Your task to perform on an android device: Empty the shopping cart on walmart. Add "macbook pro 15 inch" to the cart on walmart Image 0: 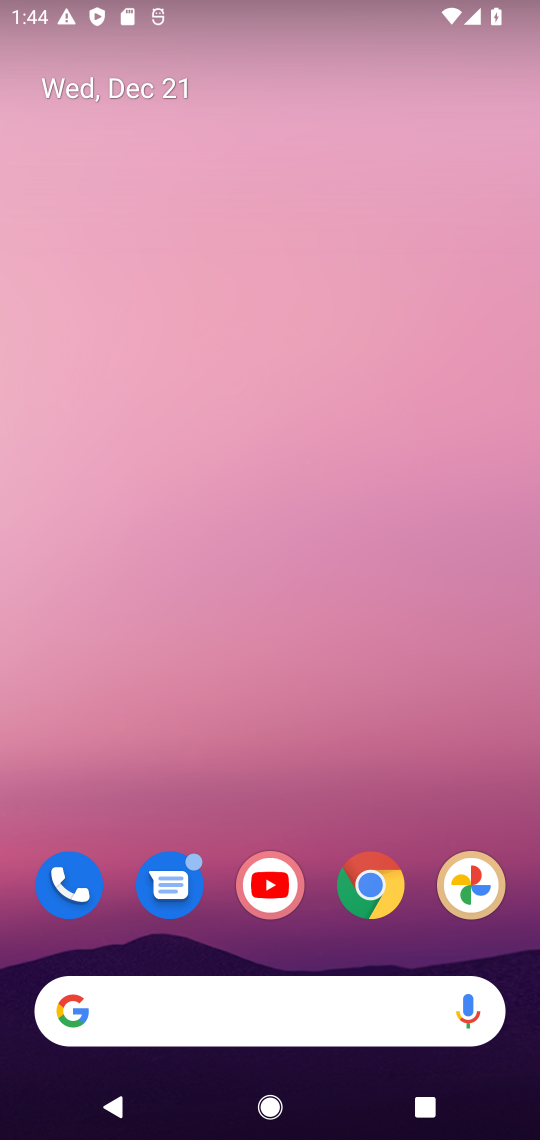
Step 0: drag from (223, 981) to (232, 507)
Your task to perform on an android device: Empty the shopping cart on walmart. Add "macbook pro 15 inch" to the cart on walmart Image 1: 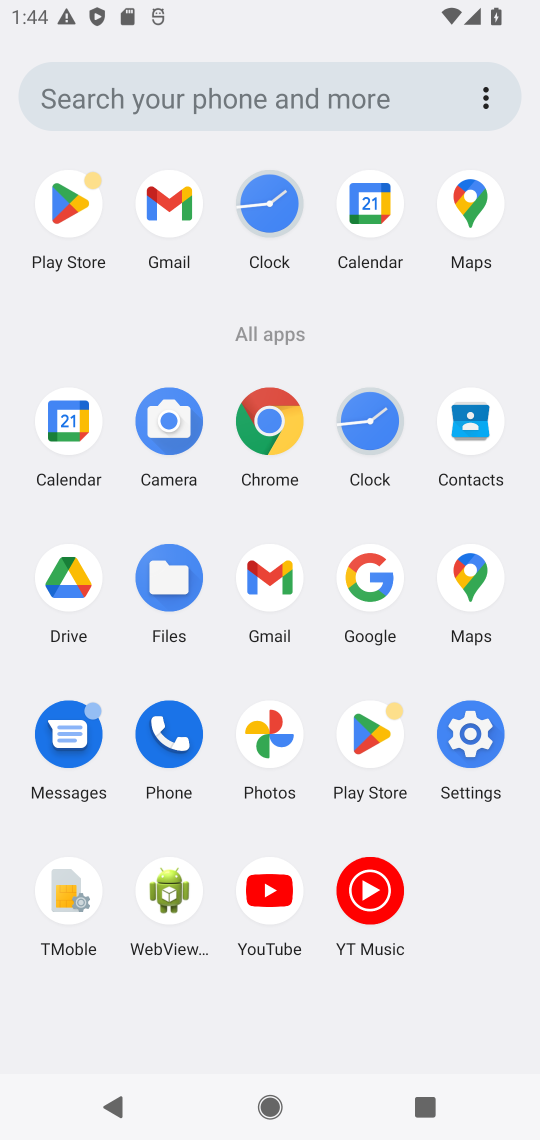
Step 1: click (370, 578)
Your task to perform on an android device: Empty the shopping cart on walmart. Add "macbook pro 15 inch" to the cart on walmart Image 2: 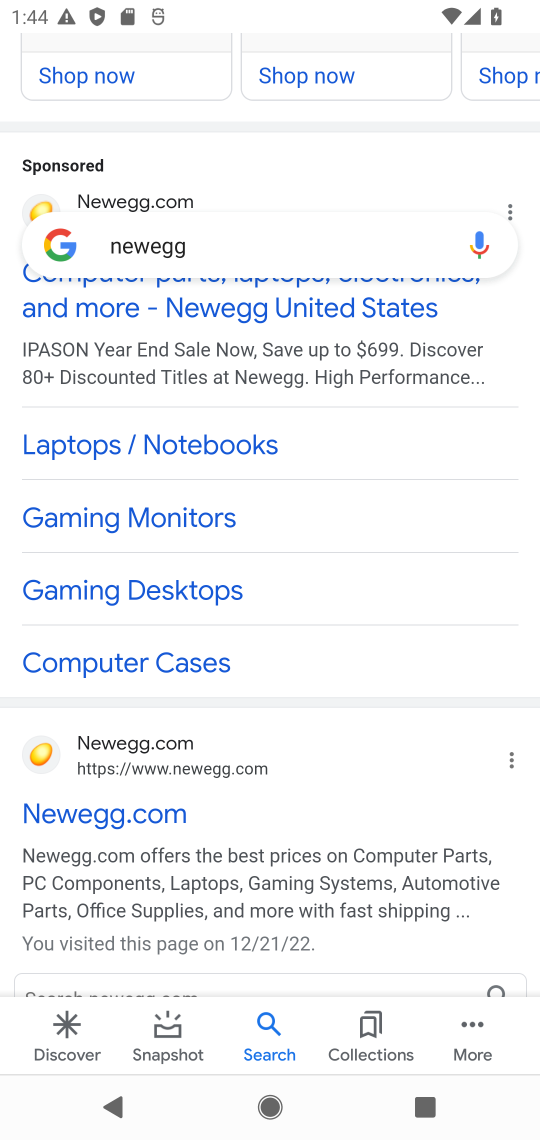
Step 2: click (156, 242)
Your task to perform on an android device: Empty the shopping cart on walmart. Add "macbook pro 15 inch" to the cart on walmart Image 3: 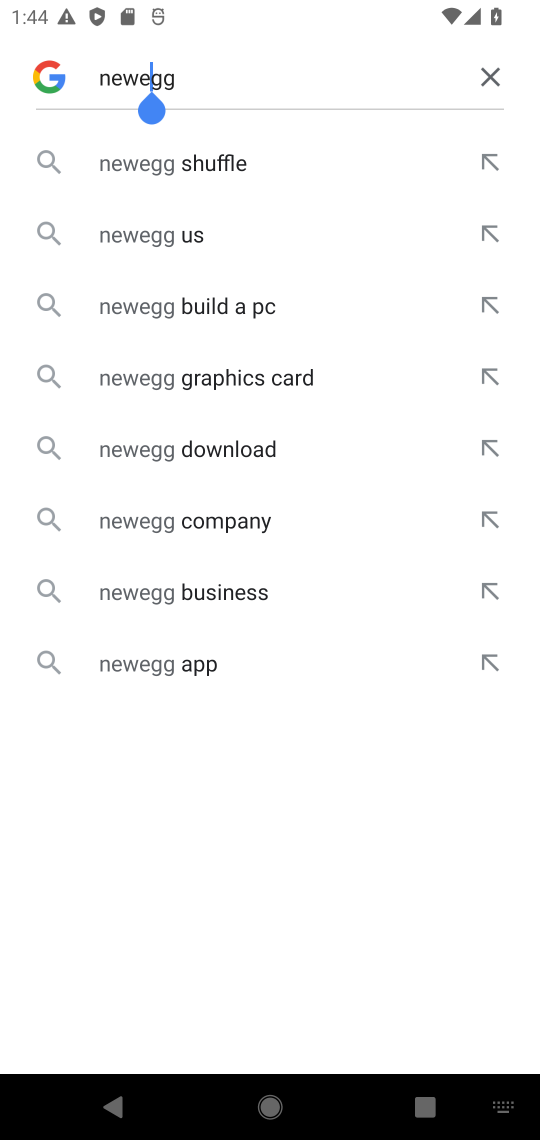
Step 3: click (487, 72)
Your task to perform on an android device: Empty the shopping cart on walmart. Add "macbook pro 15 inch" to the cart on walmart Image 4: 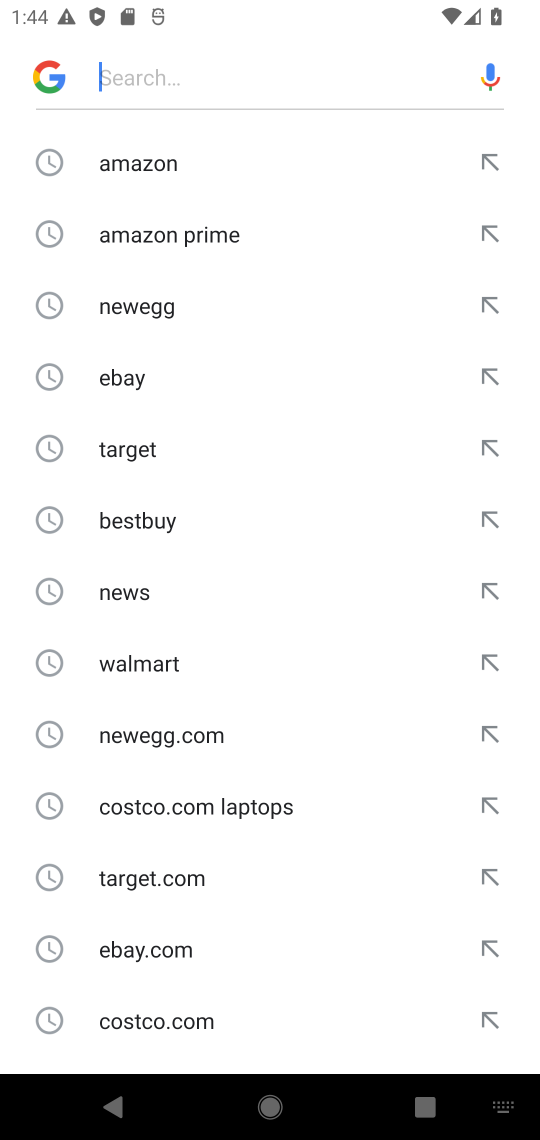
Step 4: click (140, 665)
Your task to perform on an android device: Empty the shopping cart on walmart. Add "macbook pro 15 inch" to the cart on walmart Image 5: 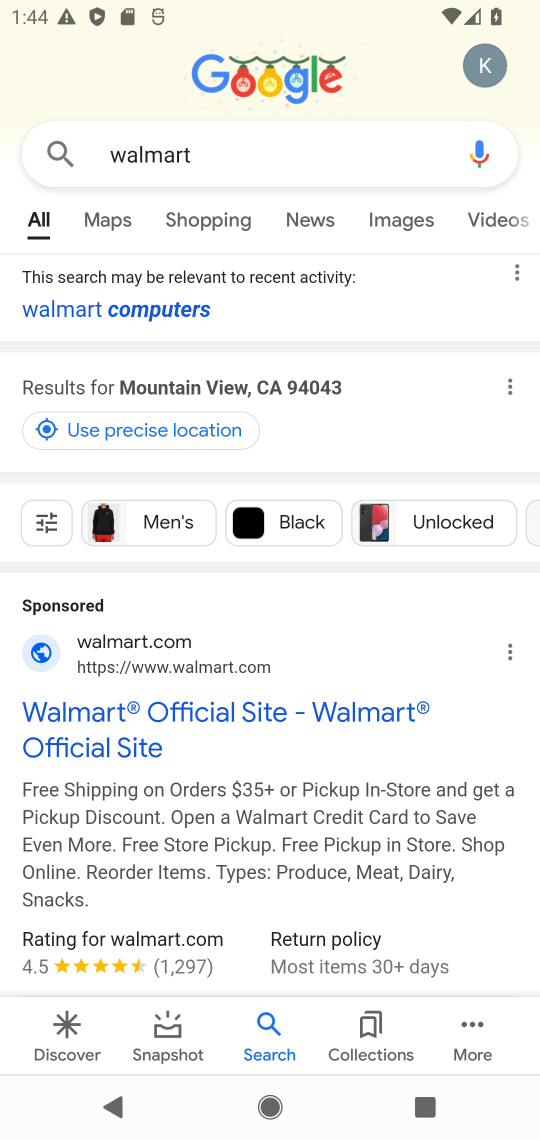
Step 5: click (112, 723)
Your task to perform on an android device: Empty the shopping cart on walmart. Add "macbook pro 15 inch" to the cart on walmart Image 6: 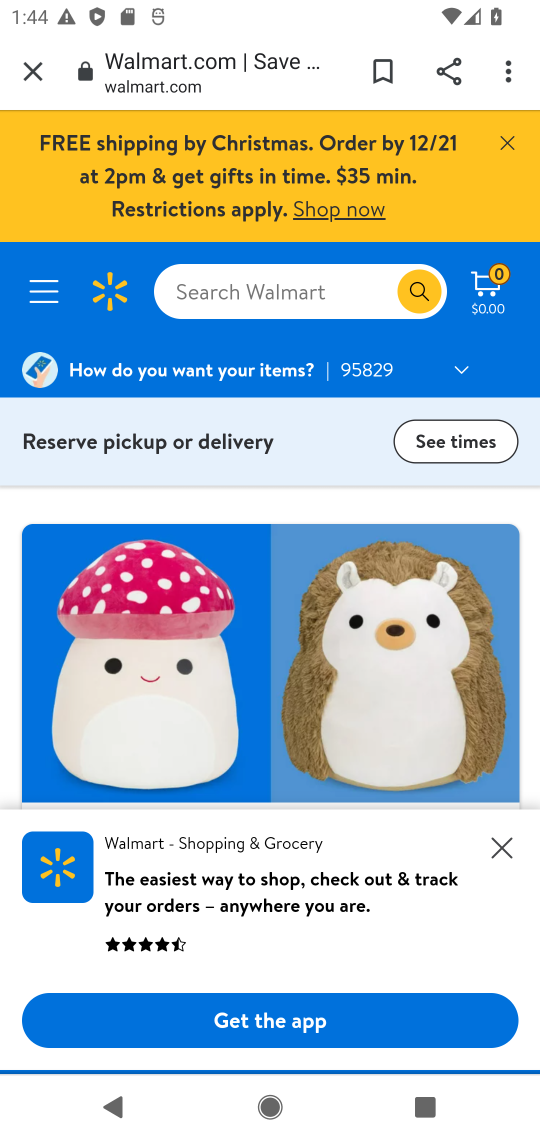
Step 6: click (240, 286)
Your task to perform on an android device: Empty the shopping cart on walmart. Add "macbook pro 15 inch" to the cart on walmart Image 7: 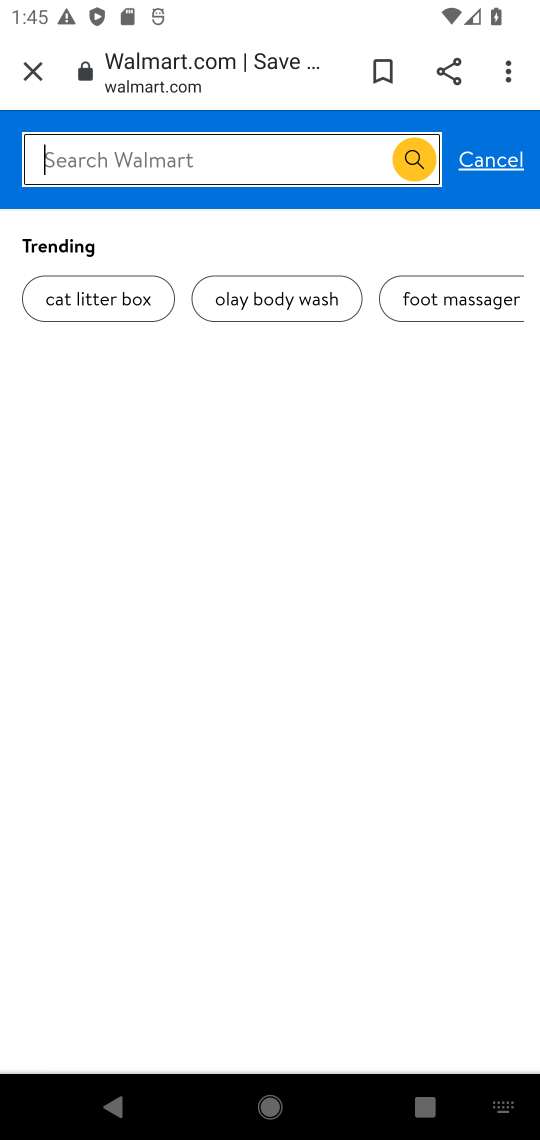
Step 7: type "macbook pro 15 inch"
Your task to perform on an android device: Empty the shopping cart on walmart. Add "macbook pro 15 inch" to the cart on walmart Image 8: 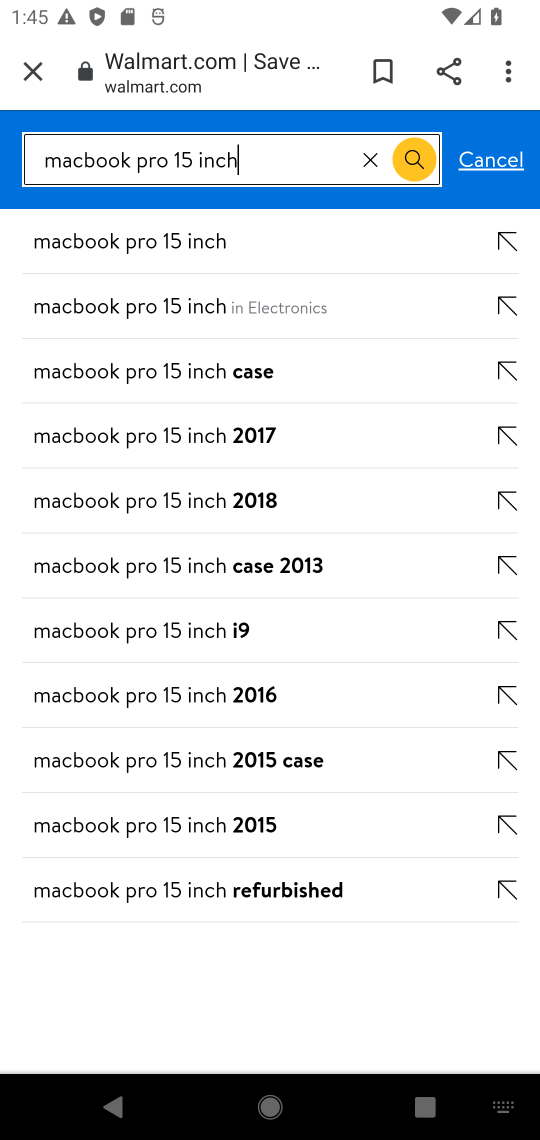
Step 8: click (117, 248)
Your task to perform on an android device: Empty the shopping cart on walmart. Add "macbook pro 15 inch" to the cart on walmart Image 9: 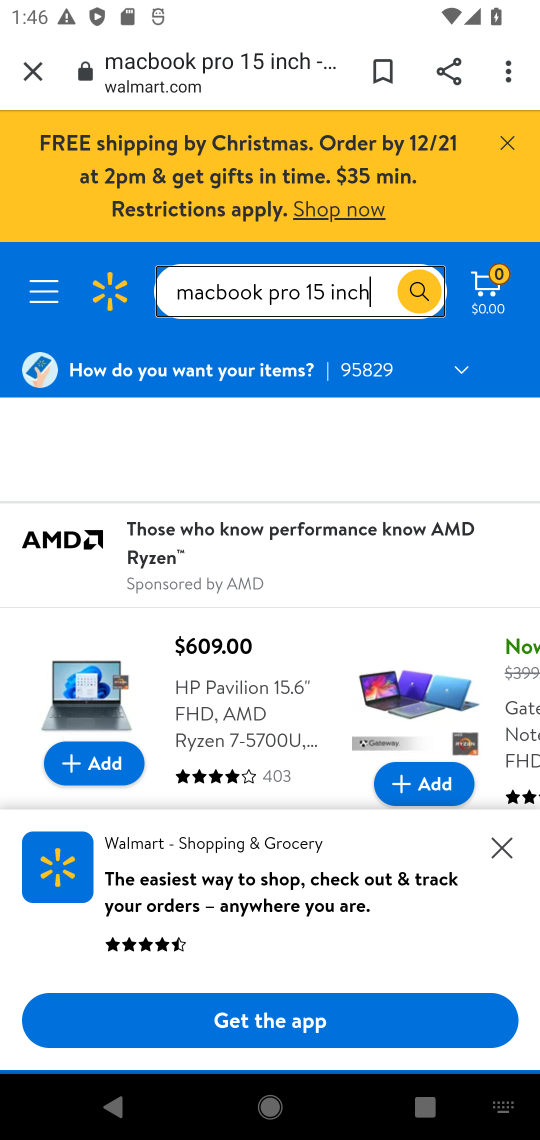
Step 9: click (510, 847)
Your task to perform on an android device: Empty the shopping cart on walmart. Add "macbook pro 15 inch" to the cart on walmart Image 10: 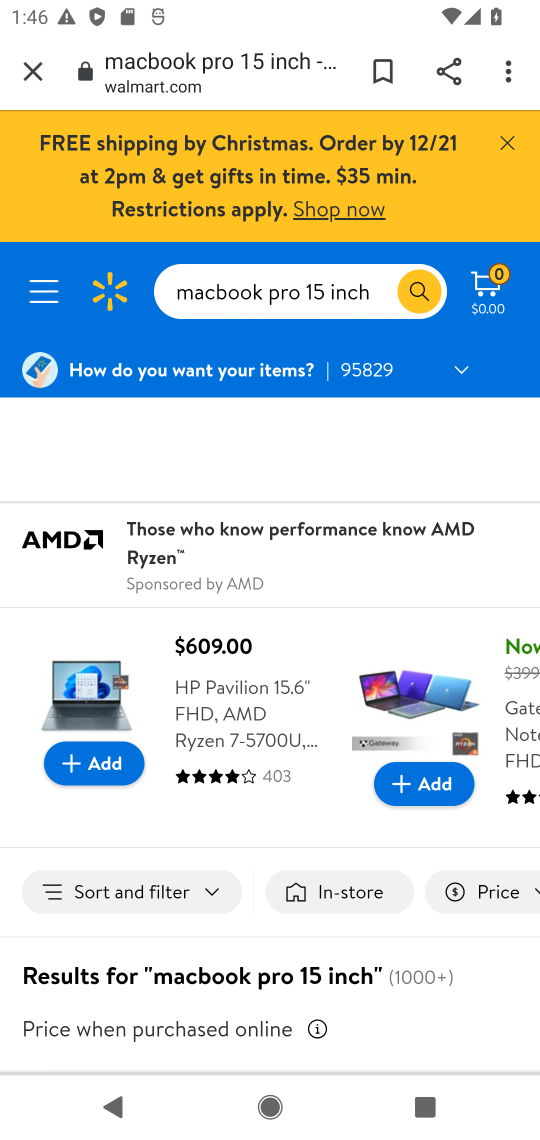
Step 10: drag from (308, 828) to (250, 413)
Your task to perform on an android device: Empty the shopping cart on walmart. Add "macbook pro 15 inch" to the cart on walmart Image 11: 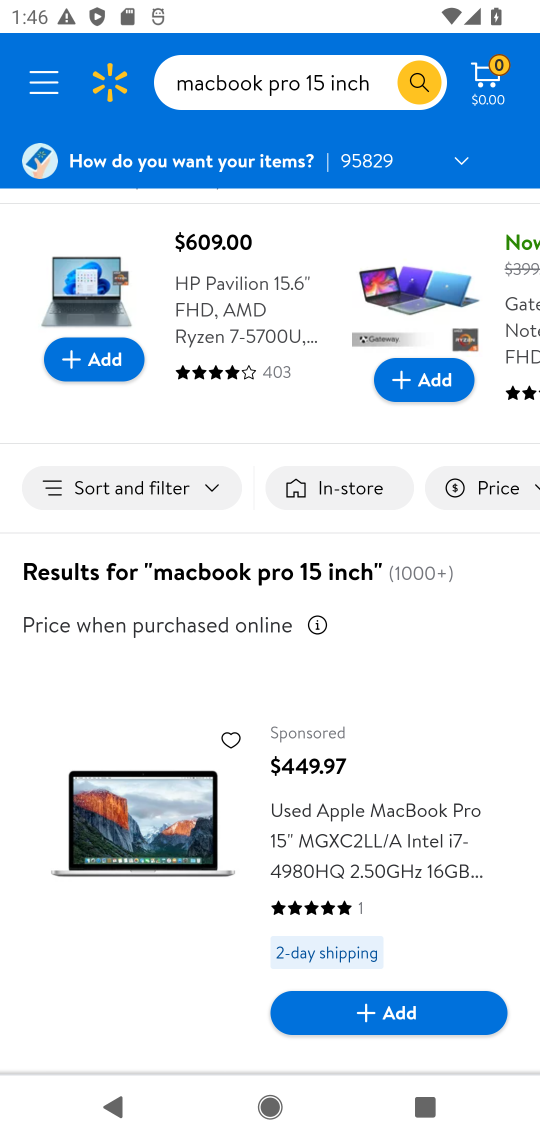
Step 11: drag from (315, 957) to (282, 512)
Your task to perform on an android device: Empty the shopping cart on walmart. Add "macbook pro 15 inch" to the cart on walmart Image 12: 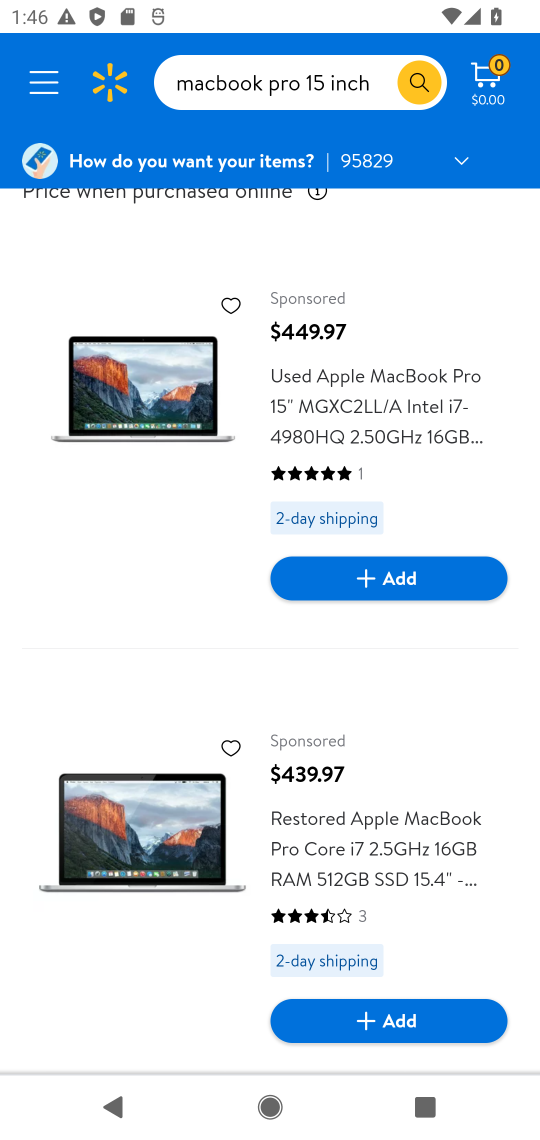
Step 12: click (379, 978)
Your task to perform on an android device: Empty the shopping cart on walmart. Add "macbook pro 15 inch" to the cart on walmart Image 13: 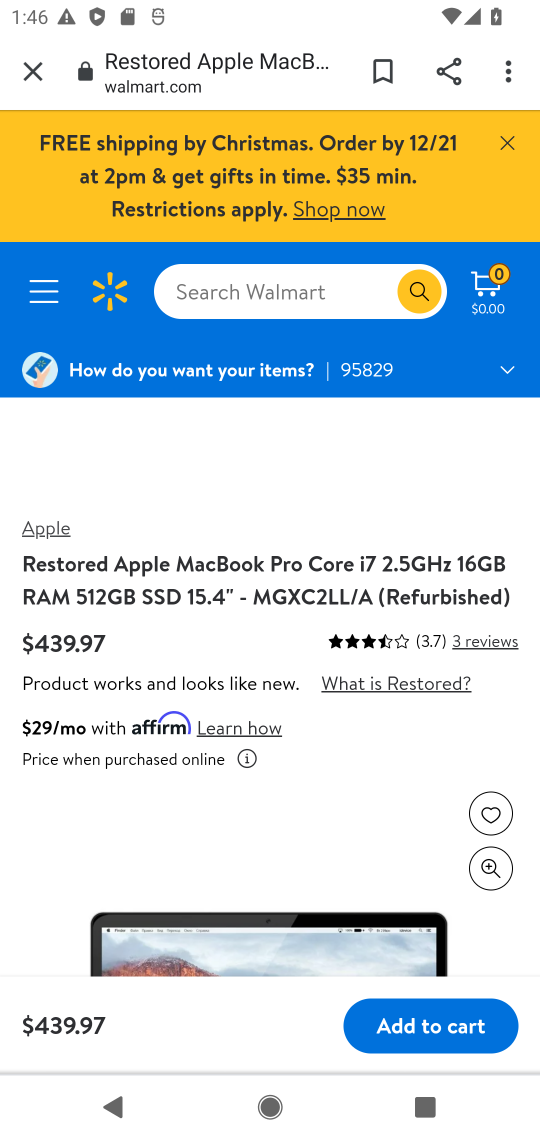
Step 13: click (426, 1033)
Your task to perform on an android device: Empty the shopping cart on walmart. Add "macbook pro 15 inch" to the cart on walmart Image 14: 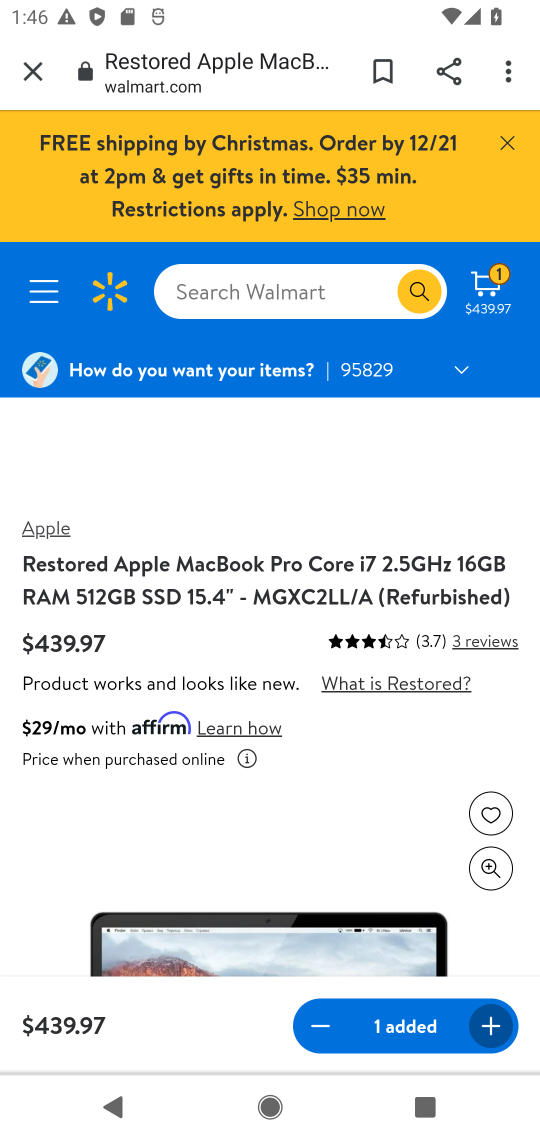
Step 14: task complete